Your task to perform on an android device: turn on sleep mode Image 0: 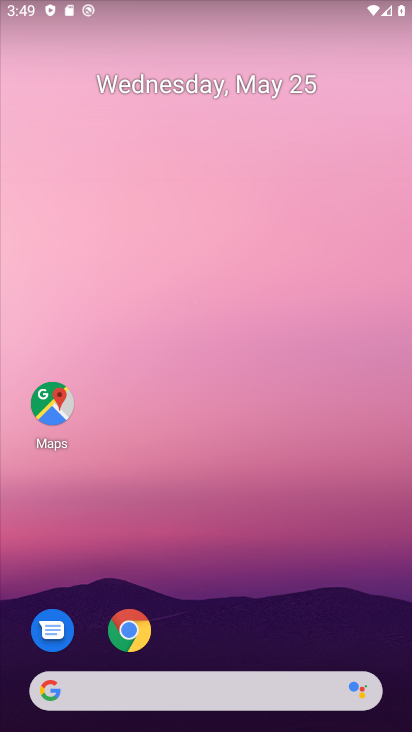
Step 0: drag from (190, 326) to (167, 175)
Your task to perform on an android device: turn on sleep mode Image 1: 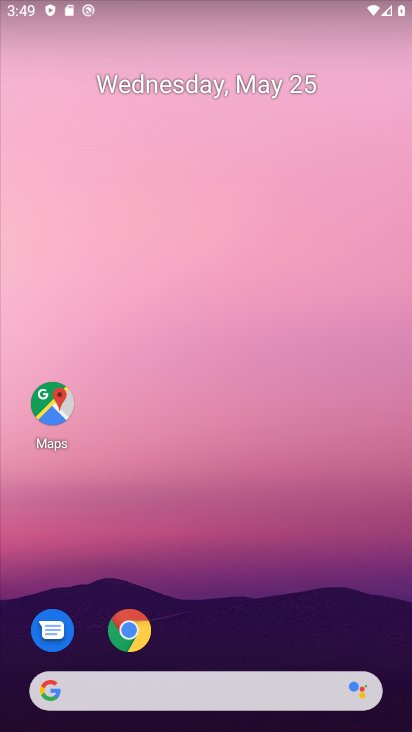
Step 1: drag from (223, 609) to (163, 106)
Your task to perform on an android device: turn on sleep mode Image 2: 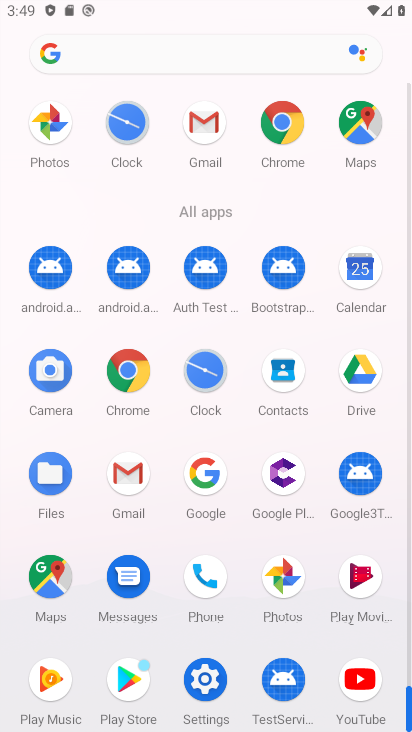
Step 2: click (187, 669)
Your task to perform on an android device: turn on sleep mode Image 3: 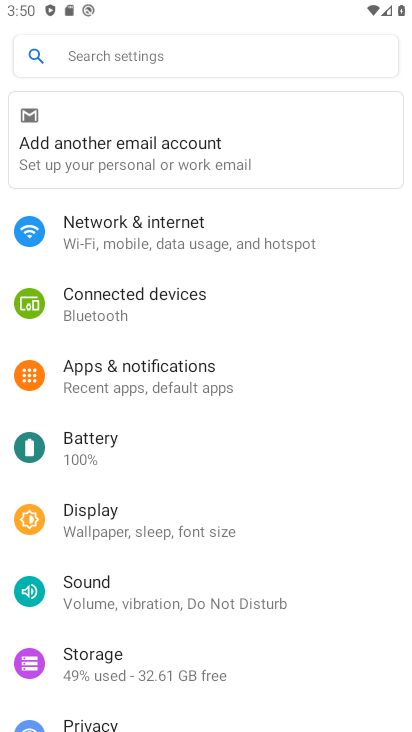
Step 3: click (154, 527)
Your task to perform on an android device: turn on sleep mode Image 4: 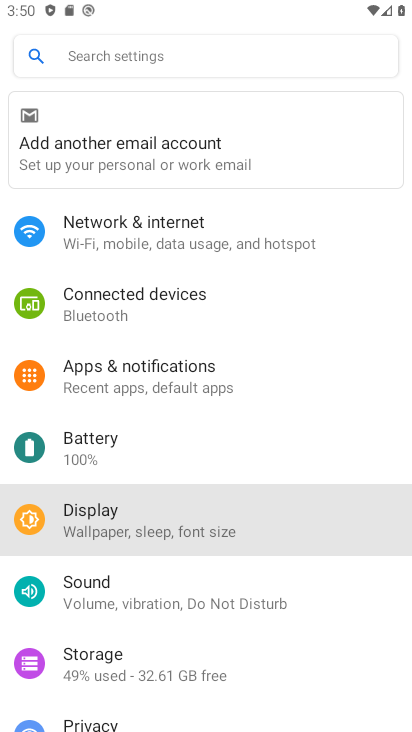
Step 4: click (153, 528)
Your task to perform on an android device: turn on sleep mode Image 5: 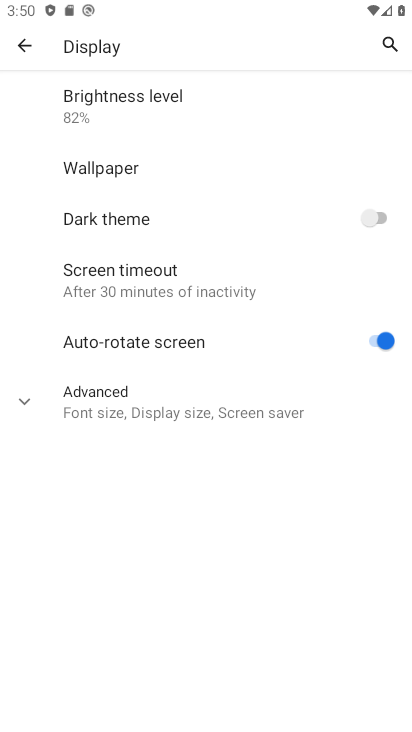
Step 5: click (156, 529)
Your task to perform on an android device: turn on sleep mode Image 6: 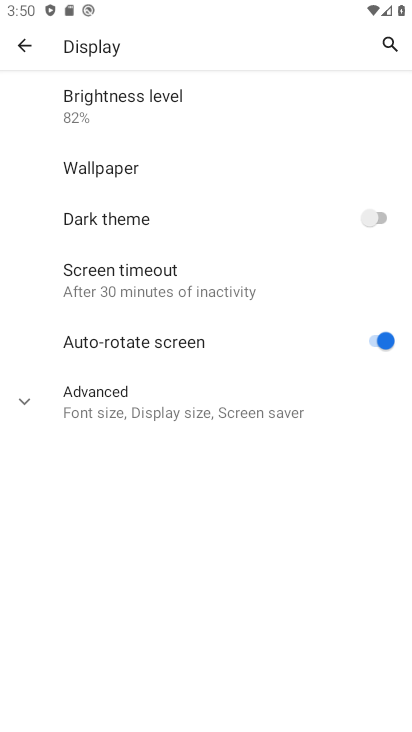
Step 6: click (156, 529)
Your task to perform on an android device: turn on sleep mode Image 7: 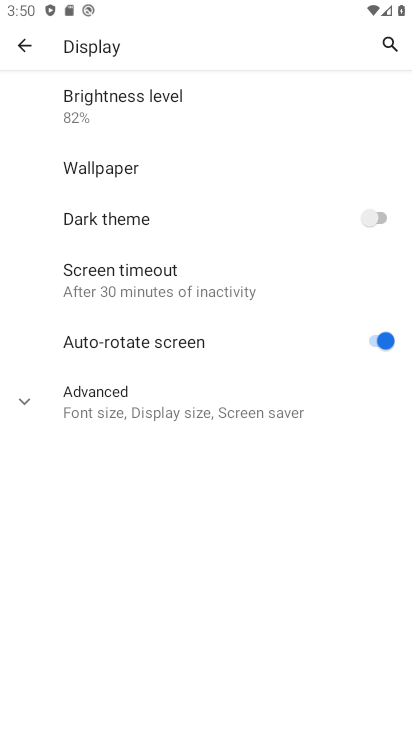
Step 7: click (156, 529)
Your task to perform on an android device: turn on sleep mode Image 8: 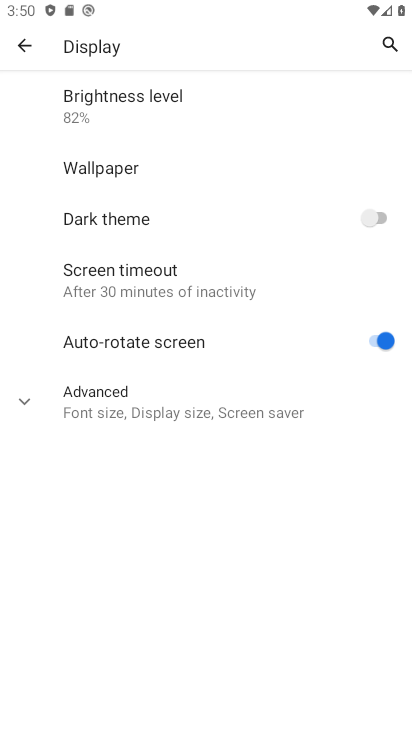
Step 8: click (156, 529)
Your task to perform on an android device: turn on sleep mode Image 9: 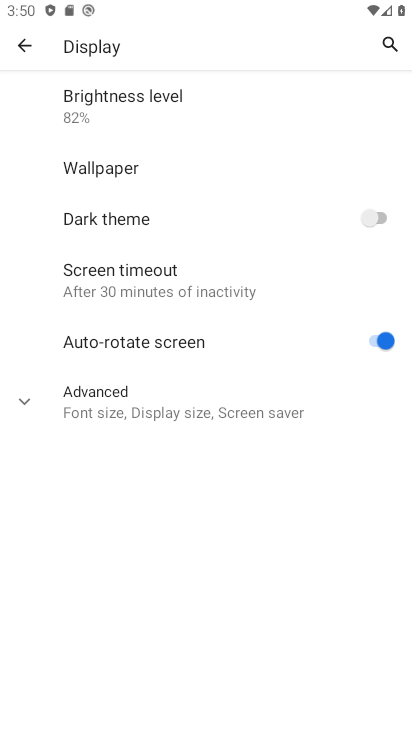
Step 9: click (21, 41)
Your task to perform on an android device: turn on sleep mode Image 10: 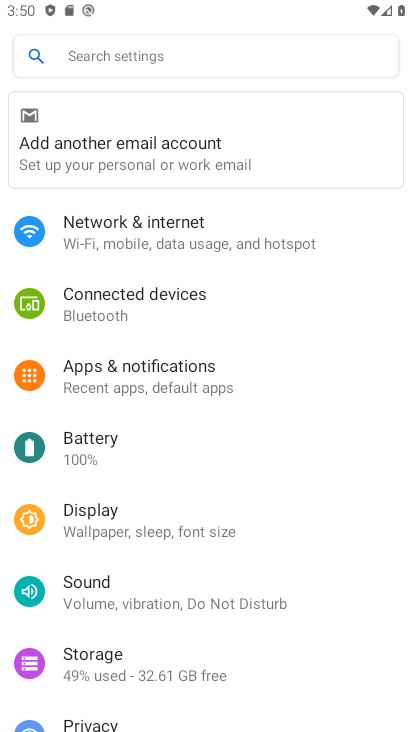
Step 10: click (88, 529)
Your task to perform on an android device: turn on sleep mode Image 11: 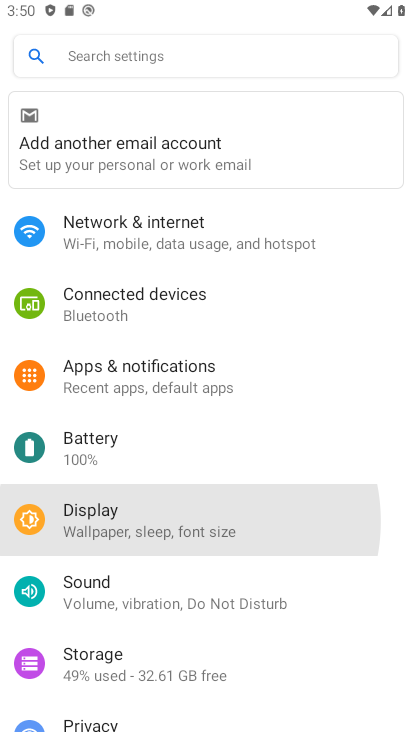
Step 11: click (88, 529)
Your task to perform on an android device: turn on sleep mode Image 12: 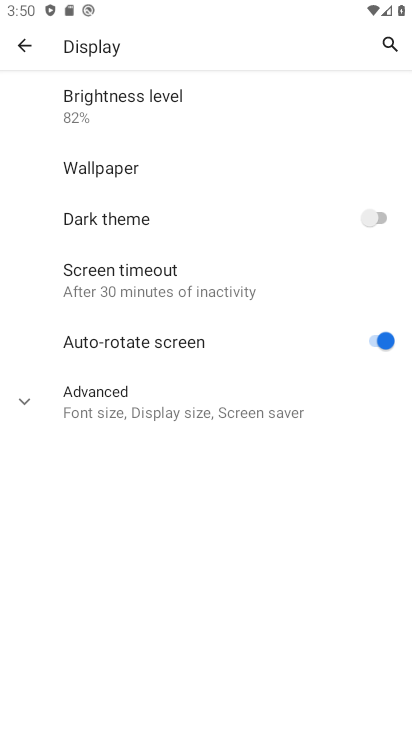
Step 12: click (88, 528)
Your task to perform on an android device: turn on sleep mode Image 13: 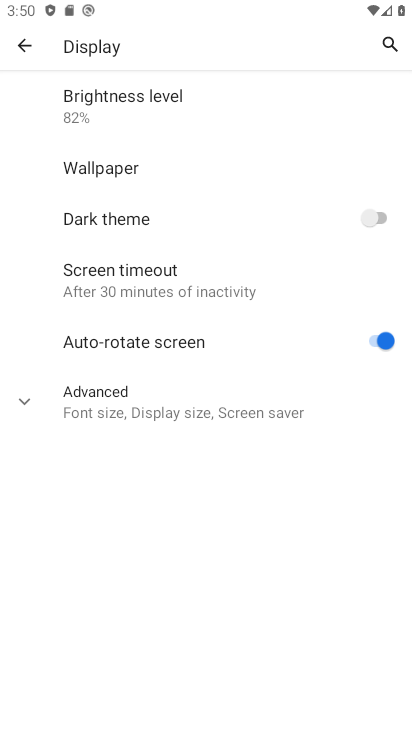
Step 13: task complete